Your task to perform on an android device: Open settings on Google Maps Image 0: 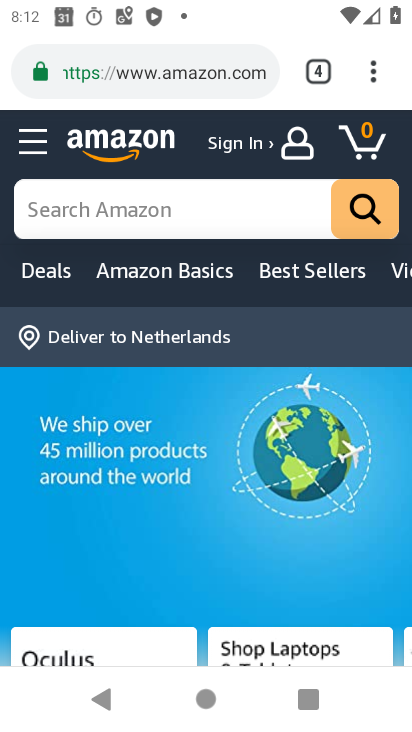
Step 0: press home button
Your task to perform on an android device: Open settings on Google Maps Image 1: 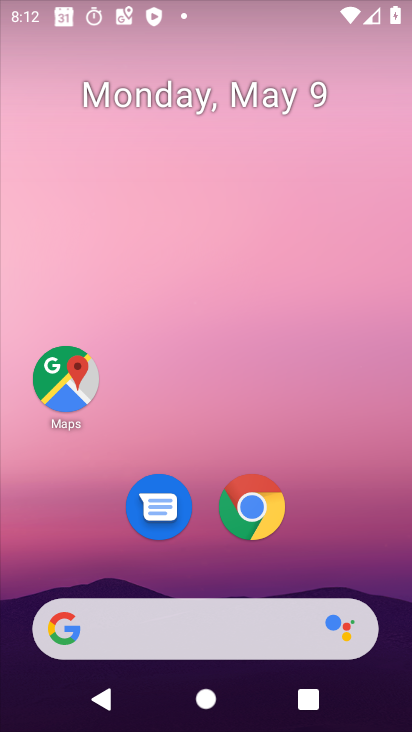
Step 1: drag from (260, 668) to (205, 189)
Your task to perform on an android device: Open settings on Google Maps Image 2: 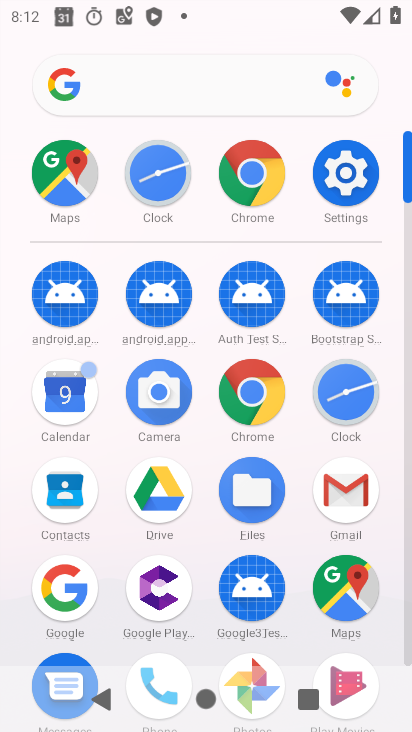
Step 2: click (66, 163)
Your task to perform on an android device: Open settings on Google Maps Image 3: 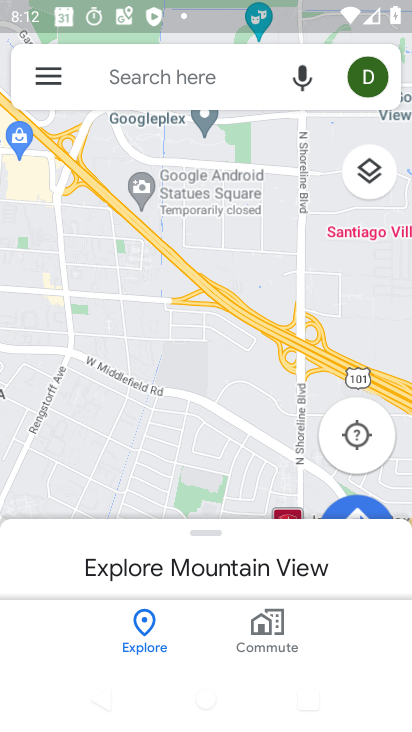
Step 3: click (43, 75)
Your task to perform on an android device: Open settings on Google Maps Image 4: 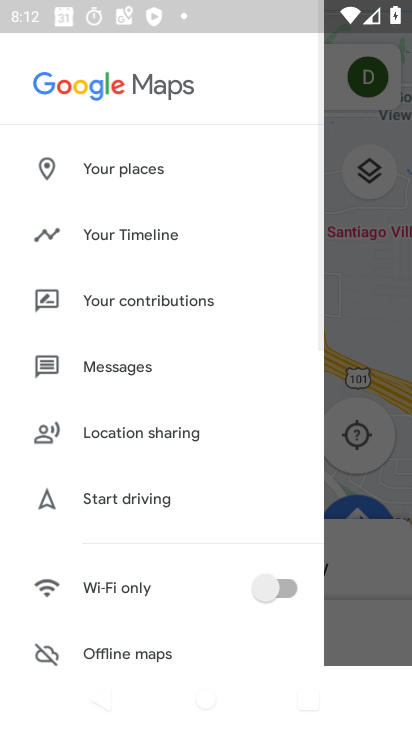
Step 4: drag from (162, 624) to (227, 458)
Your task to perform on an android device: Open settings on Google Maps Image 5: 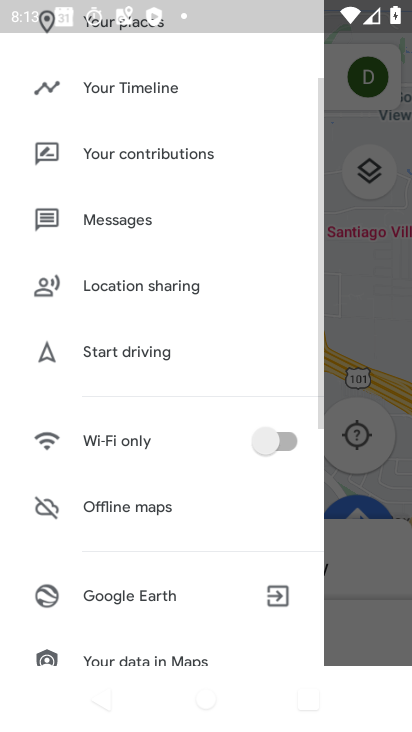
Step 5: drag from (148, 566) to (203, 399)
Your task to perform on an android device: Open settings on Google Maps Image 6: 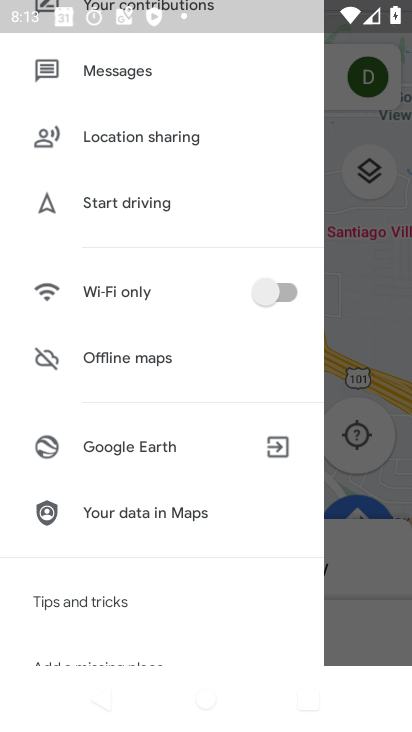
Step 6: drag from (130, 587) to (170, 477)
Your task to perform on an android device: Open settings on Google Maps Image 7: 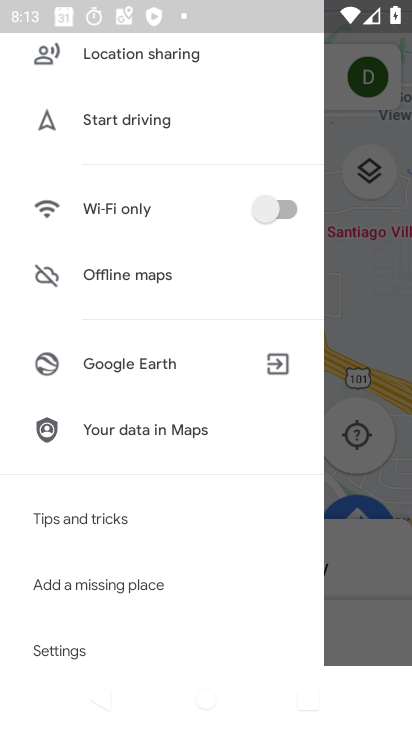
Step 7: click (70, 652)
Your task to perform on an android device: Open settings on Google Maps Image 8: 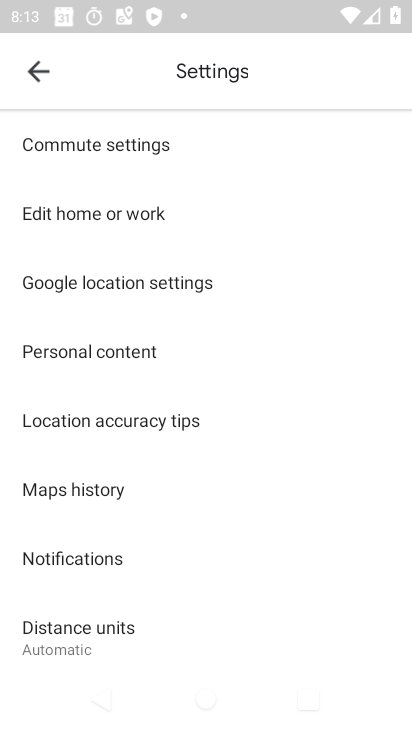
Step 8: task complete